Your task to perform on an android device: Show me productivity apps on the Play Store Image 0: 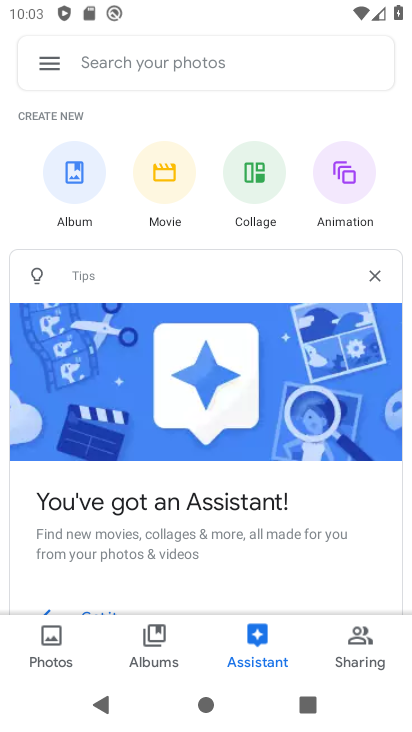
Step 0: press home button
Your task to perform on an android device: Show me productivity apps on the Play Store Image 1: 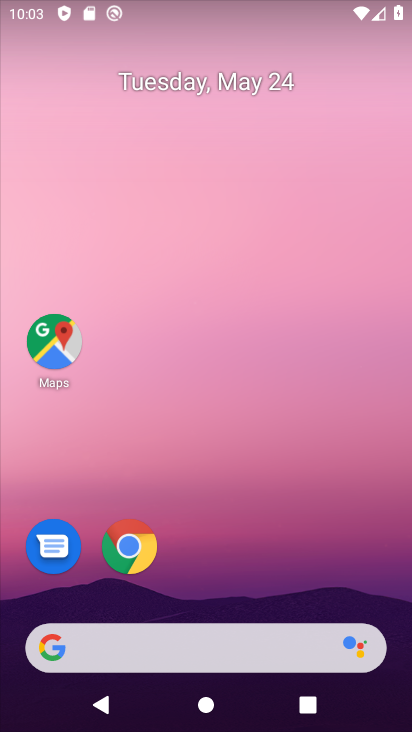
Step 1: drag from (277, 567) to (275, 156)
Your task to perform on an android device: Show me productivity apps on the Play Store Image 2: 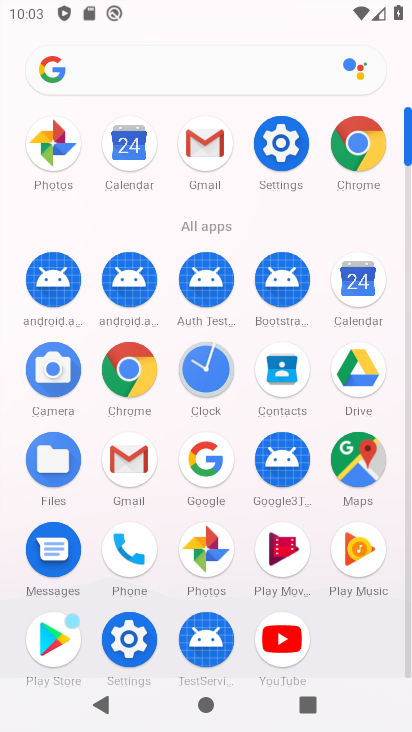
Step 2: click (42, 636)
Your task to perform on an android device: Show me productivity apps on the Play Store Image 3: 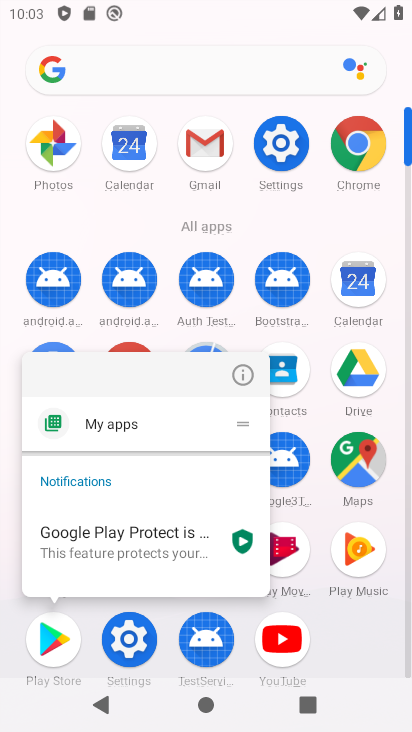
Step 3: click (54, 631)
Your task to perform on an android device: Show me productivity apps on the Play Store Image 4: 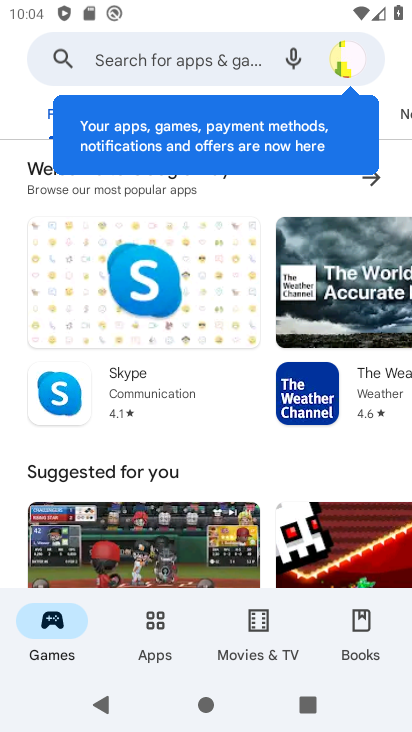
Step 4: click (155, 630)
Your task to perform on an android device: Show me productivity apps on the Play Store Image 5: 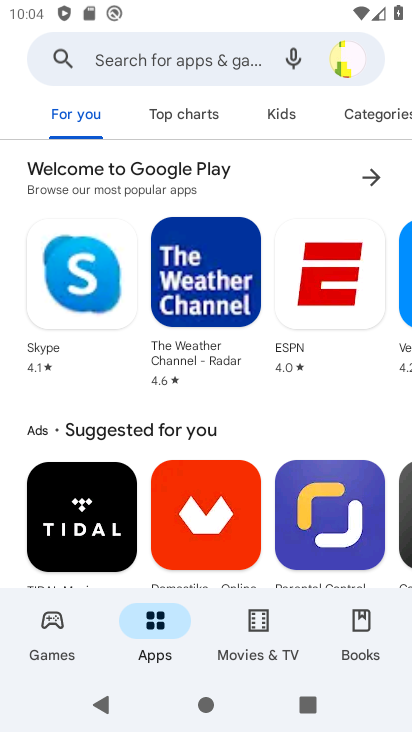
Step 5: task complete